Your task to perform on an android device: star an email in the gmail app Image 0: 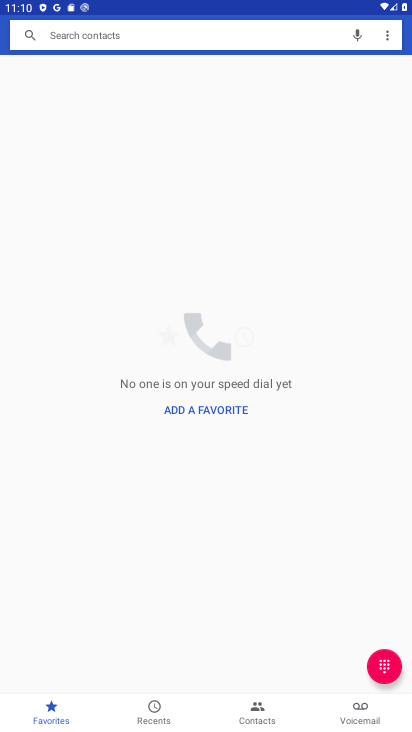
Step 0: press home button
Your task to perform on an android device: star an email in the gmail app Image 1: 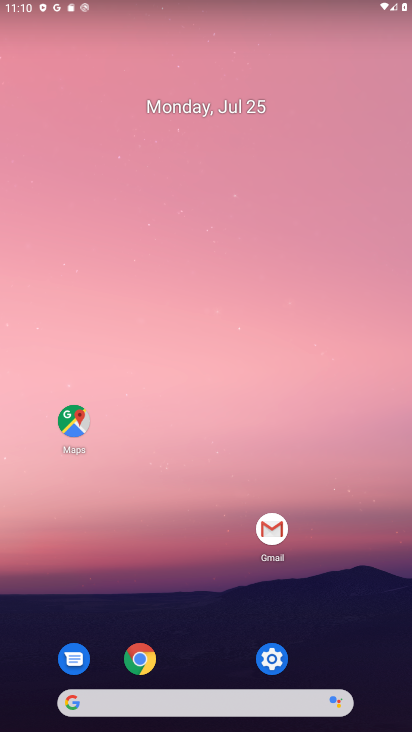
Step 1: click (283, 546)
Your task to perform on an android device: star an email in the gmail app Image 2: 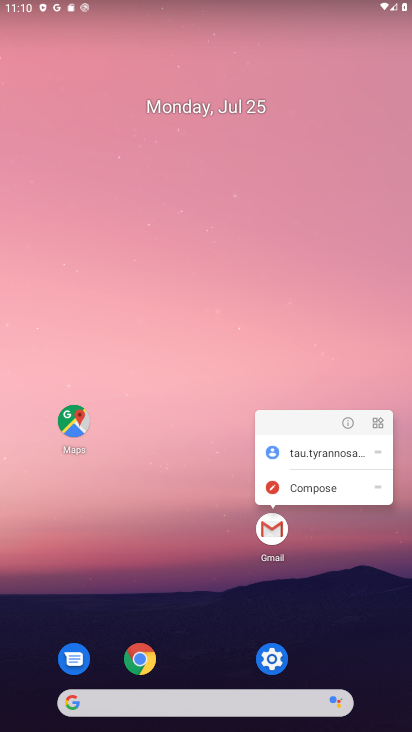
Step 2: click (275, 536)
Your task to perform on an android device: star an email in the gmail app Image 3: 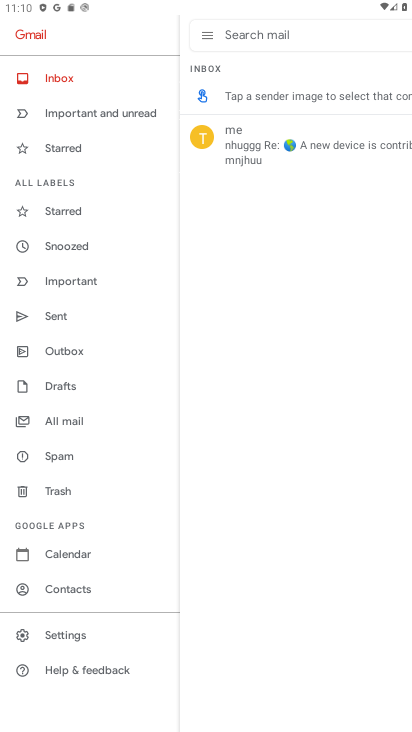
Step 3: click (254, 145)
Your task to perform on an android device: star an email in the gmail app Image 4: 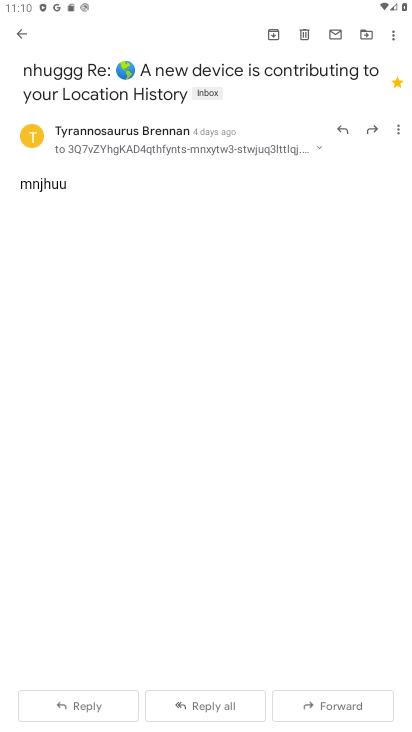
Step 4: click (397, 86)
Your task to perform on an android device: star an email in the gmail app Image 5: 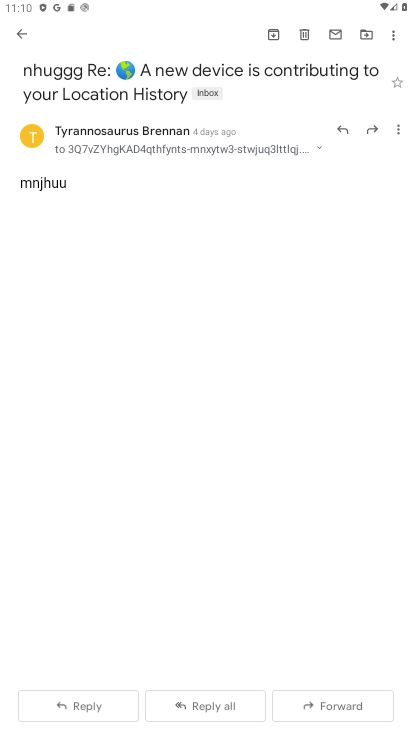
Step 5: click (397, 86)
Your task to perform on an android device: star an email in the gmail app Image 6: 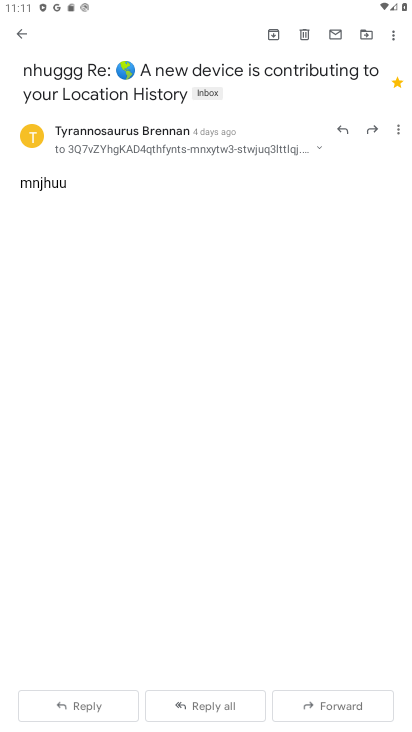
Step 6: task complete